Your task to perform on an android device: install app "LiveIn - Share Your Moment" Image 0: 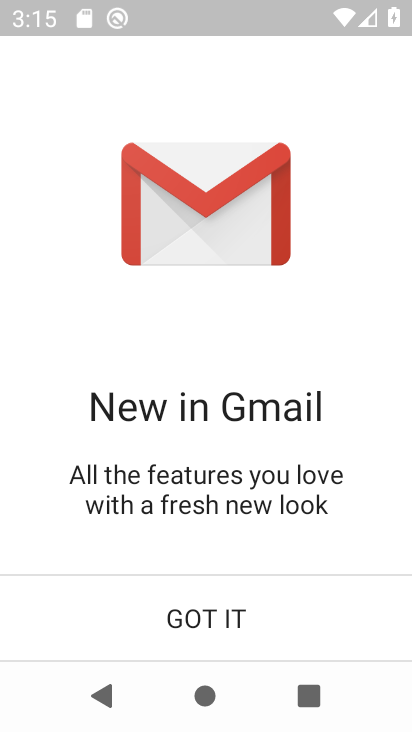
Step 0: press home button
Your task to perform on an android device: install app "LiveIn - Share Your Moment" Image 1: 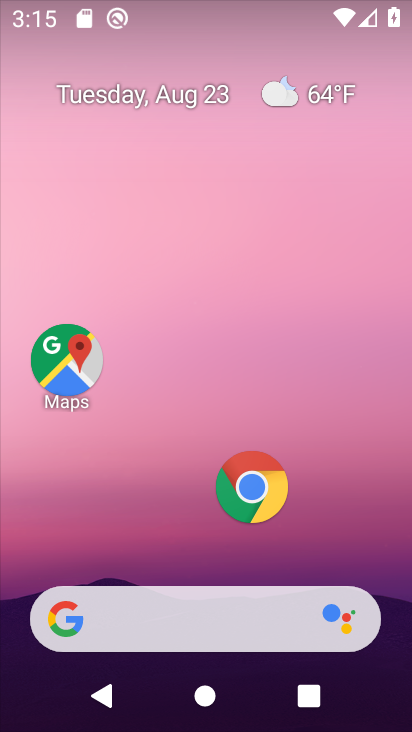
Step 1: drag from (134, 520) to (163, 47)
Your task to perform on an android device: install app "LiveIn - Share Your Moment" Image 2: 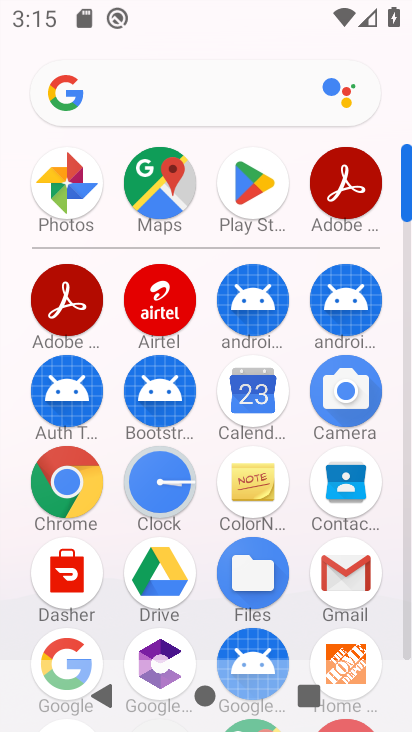
Step 2: click (232, 160)
Your task to perform on an android device: install app "LiveIn - Share Your Moment" Image 3: 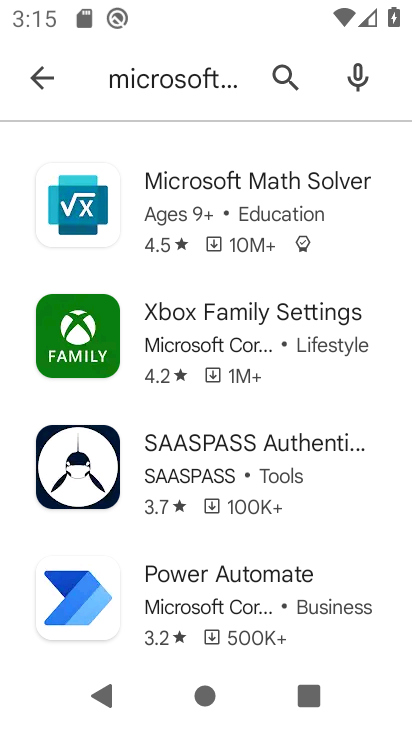
Step 3: click (62, 66)
Your task to perform on an android device: install app "LiveIn - Share Your Moment" Image 4: 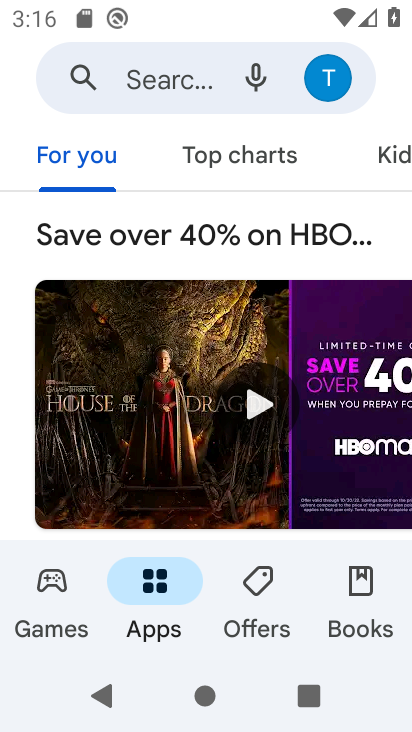
Step 4: click (162, 78)
Your task to perform on an android device: install app "LiveIn - Share Your Moment" Image 5: 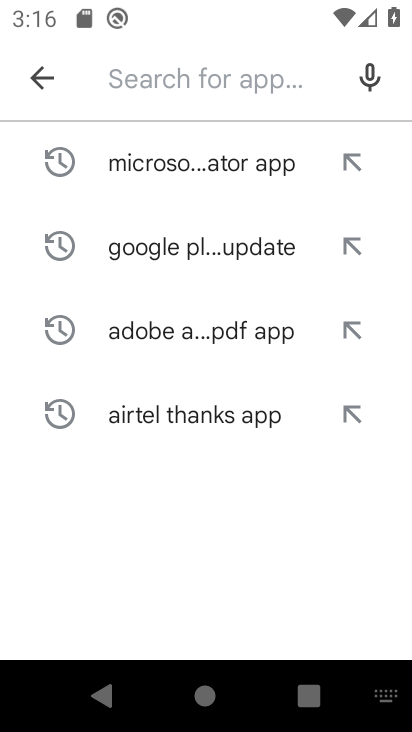
Step 5: type "LiveIn "
Your task to perform on an android device: install app "LiveIn - Share Your Moment" Image 6: 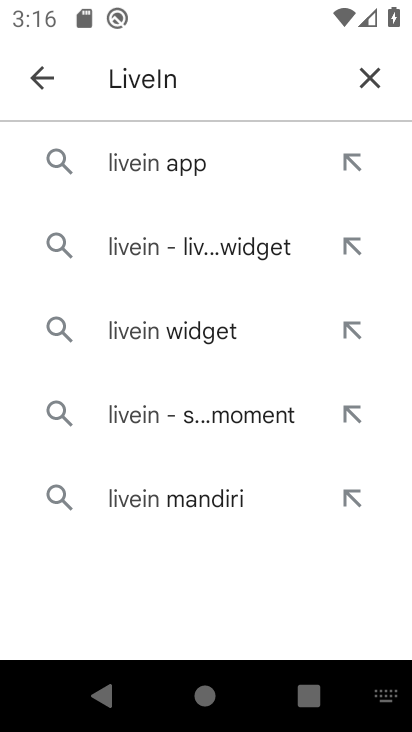
Step 6: click (135, 168)
Your task to perform on an android device: install app "LiveIn - Share Your Moment" Image 7: 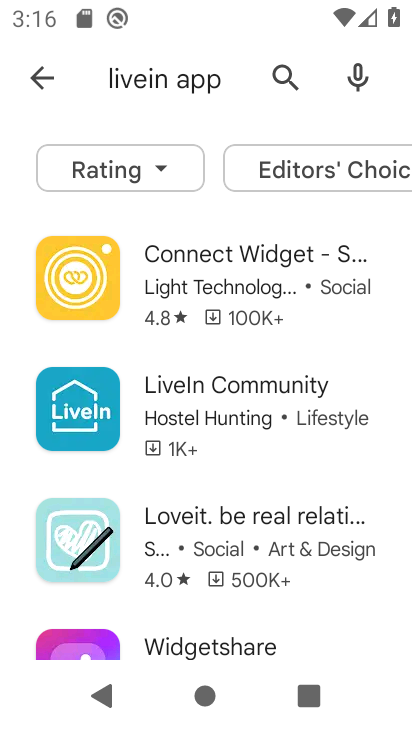
Step 7: click (198, 397)
Your task to perform on an android device: install app "LiveIn - Share Your Moment" Image 8: 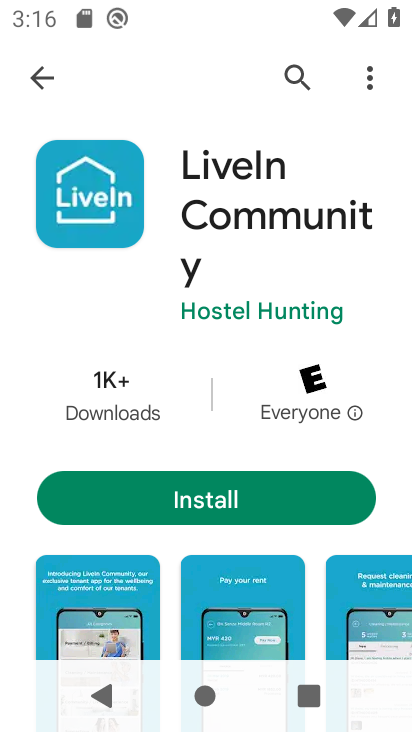
Step 8: click (214, 480)
Your task to perform on an android device: install app "LiveIn - Share Your Moment" Image 9: 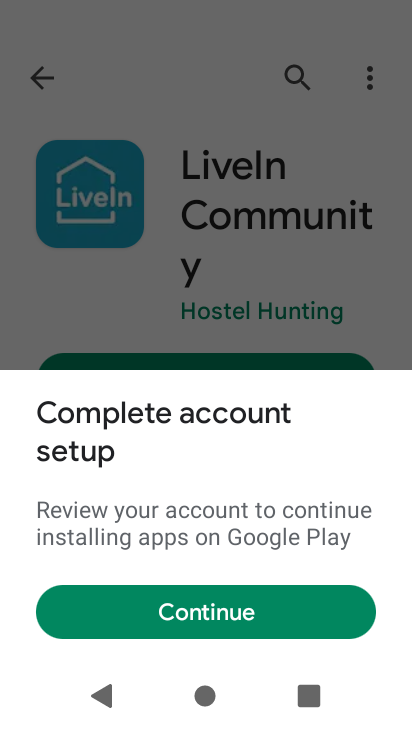
Step 9: task complete